Your task to perform on an android device: set default search engine in the chrome app Image 0: 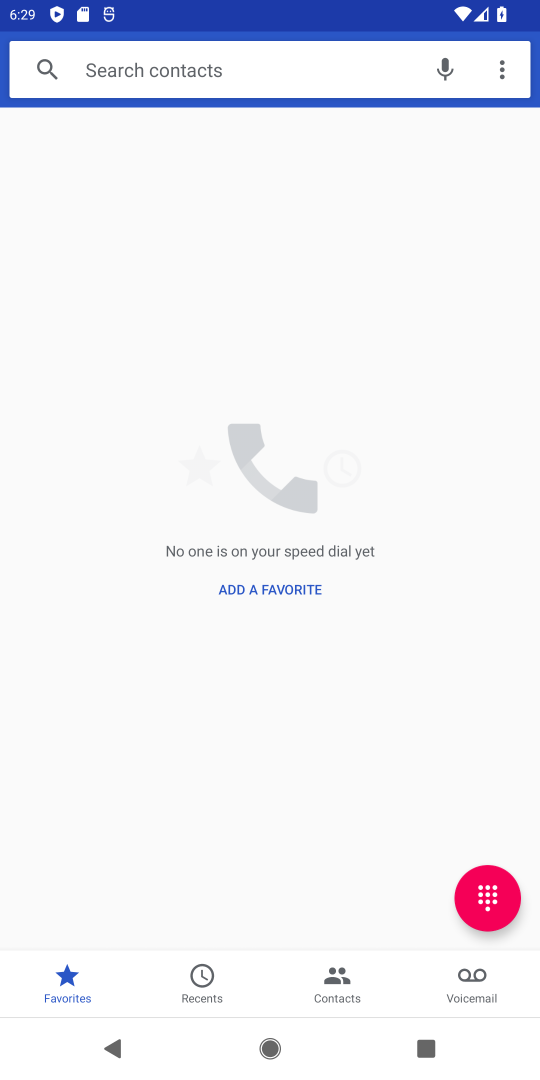
Step 0: press home button
Your task to perform on an android device: set default search engine in the chrome app Image 1: 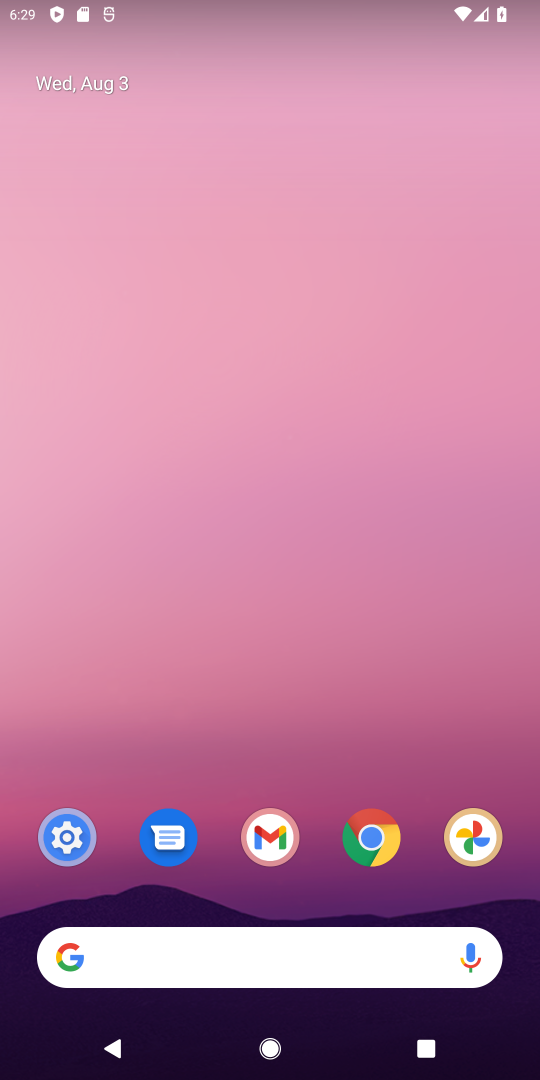
Step 1: click (362, 838)
Your task to perform on an android device: set default search engine in the chrome app Image 2: 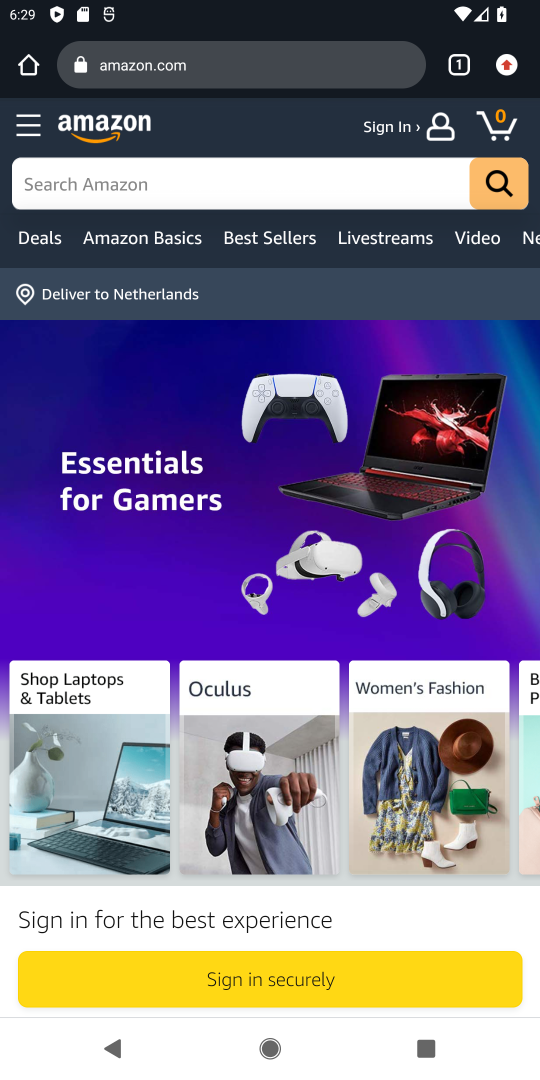
Step 2: click (507, 66)
Your task to perform on an android device: set default search engine in the chrome app Image 3: 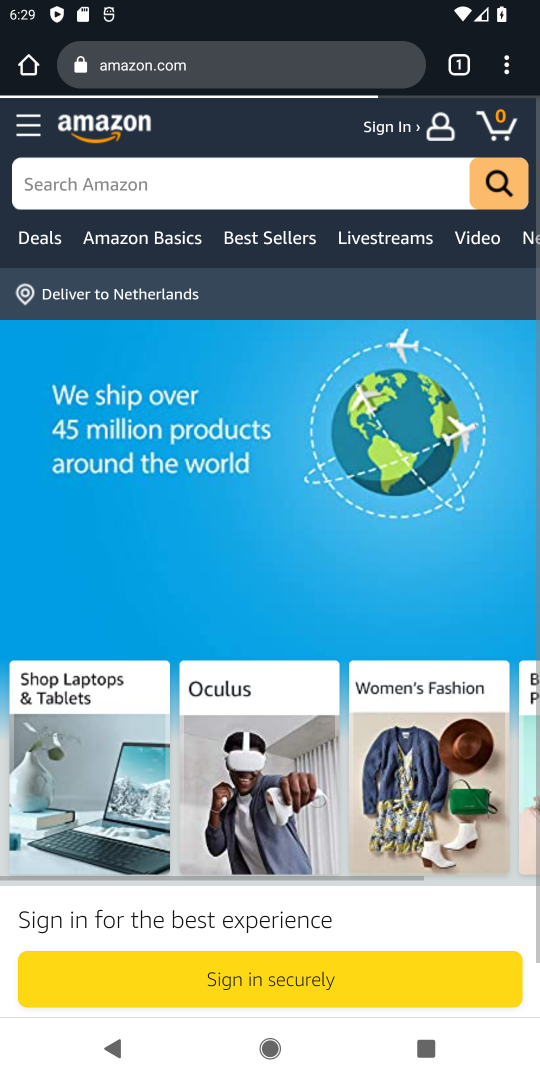
Step 3: drag from (508, 66) to (308, 858)
Your task to perform on an android device: set default search engine in the chrome app Image 4: 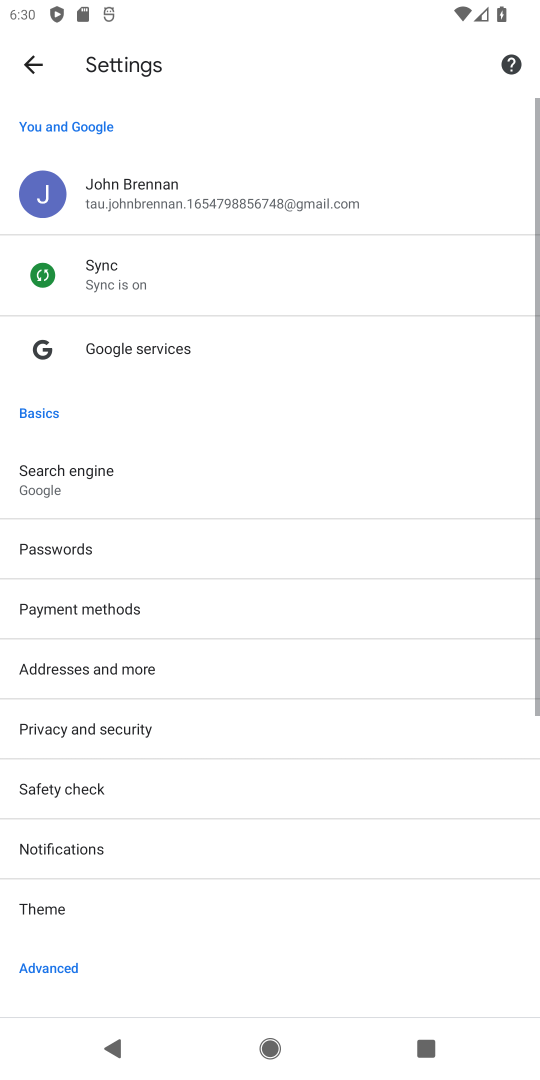
Step 4: click (52, 488)
Your task to perform on an android device: set default search engine in the chrome app Image 5: 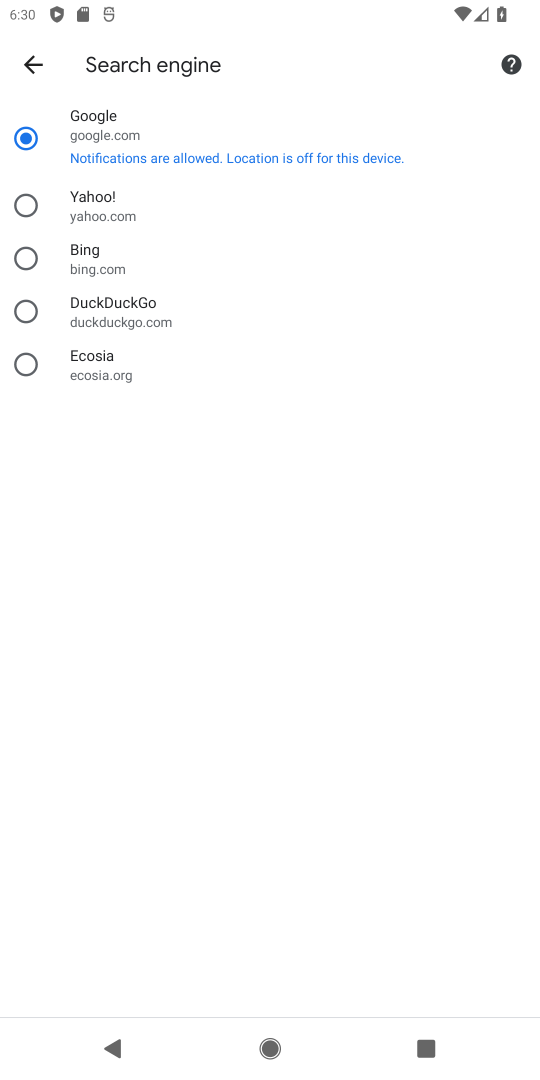
Step 5: task complete